Your task to perform on an android device: toggle javascript in the chrome app Image 0: 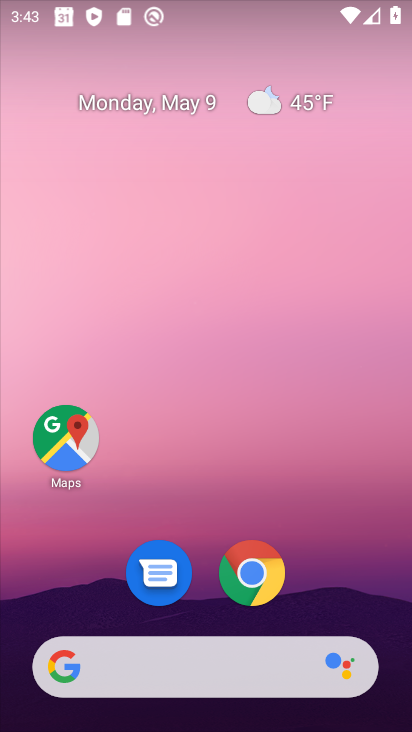
Step 0: click (260, 576)
Your task to perform on an android device: toggle javascript in the chrome app Image 1: 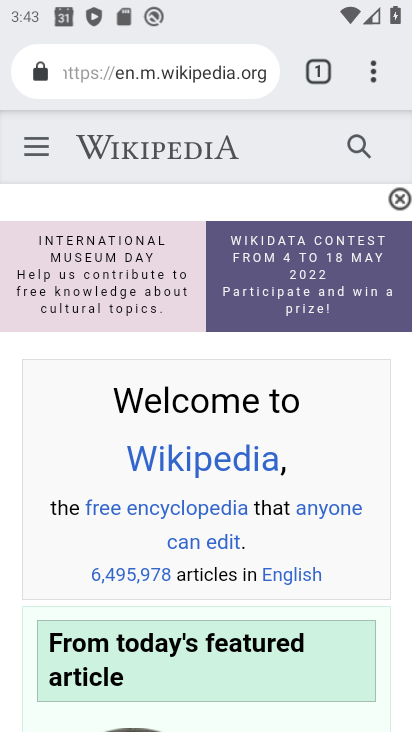
Step 1: drag from (378, 74) to (131, 567)
Your task to perform on an android device: toggle javascript in the chrome app Image 2: 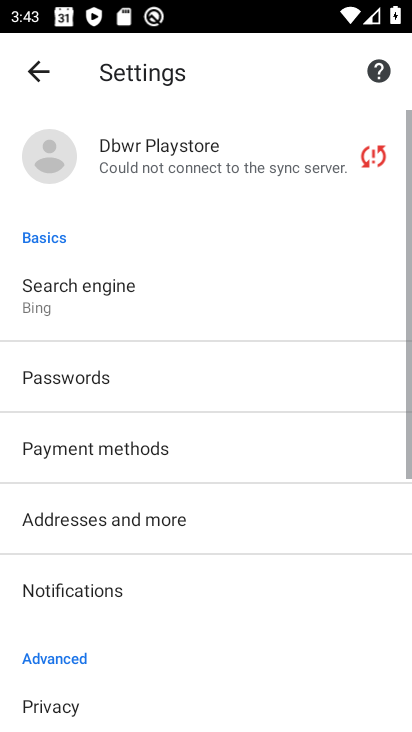
Step 2: drag from (204, 605) to (191, 284)
Your task to perform on an android device: toggle javascript in the chrome app Image 3: 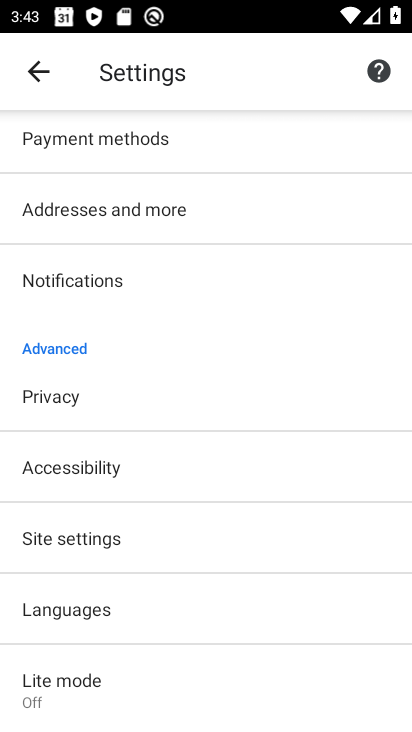
Step 3: drag from (169, 590) to (168, 295)
Your task to perform on an android device: toggle javascript in the chrome app Image 4: 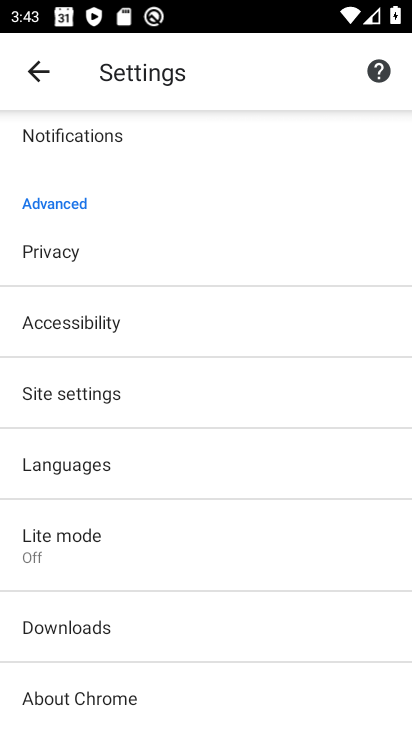
Step 4: click (74, 393)
Your task to perform on an android device: toggle javascript in the chrome app Image 5: 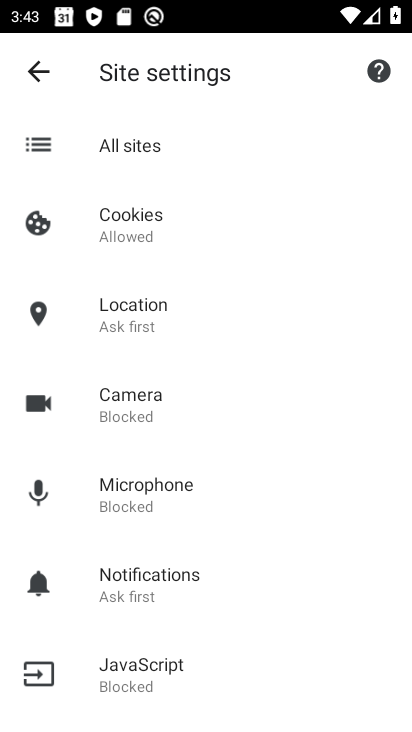
Step 5: click (164, 670)
Your task to perform on an android device: toggle javascript in the chrome app Image 6: 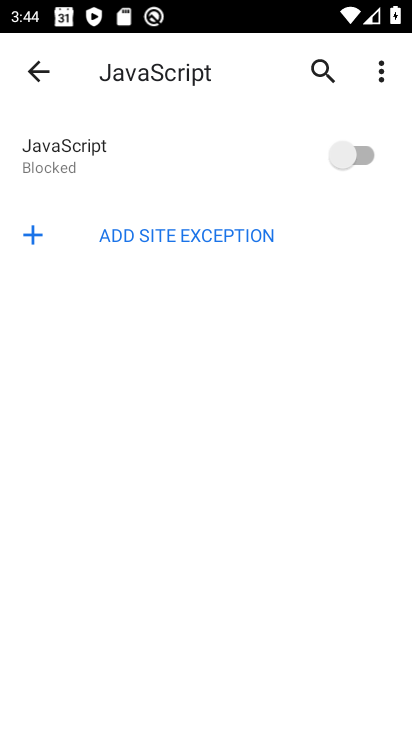
Step 6: click (348, 158)
Your task to perform on an android device: toggle javascript in the chrome app Image 7: 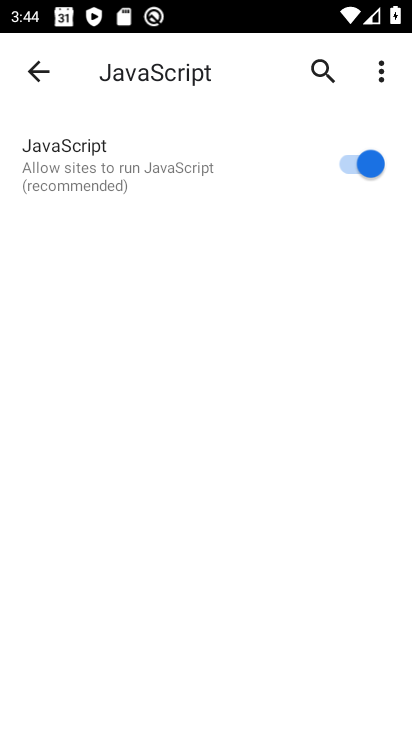
Step 7: task complete